Your task to perform on an android device: Open Google Image 0: 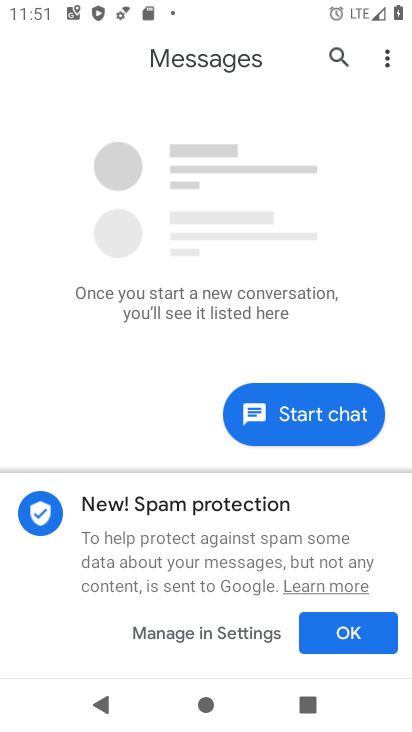
Step 0: press home button
Your task to perform on an android device: Open Google Image 1: 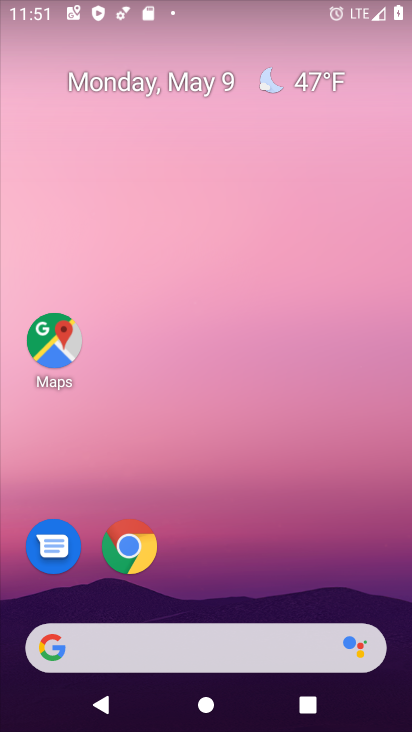
Step 1: drag from (299, 562) to (288, 19)
Your task to perform on an android device: Open Google Image 2: 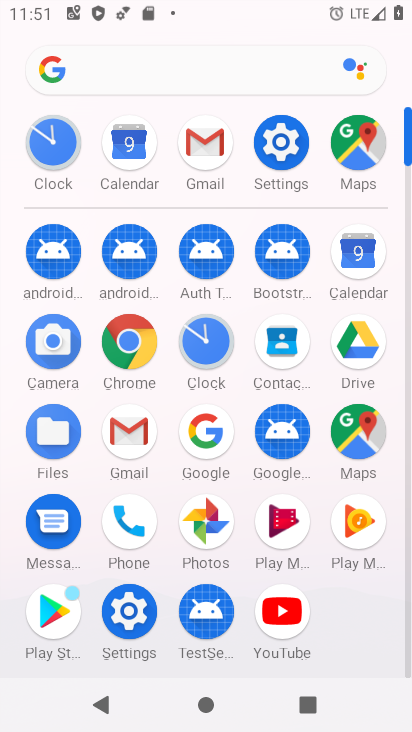
Step 2: click (208, 437)
Your task to perform on an android device: Open Google Image 3: 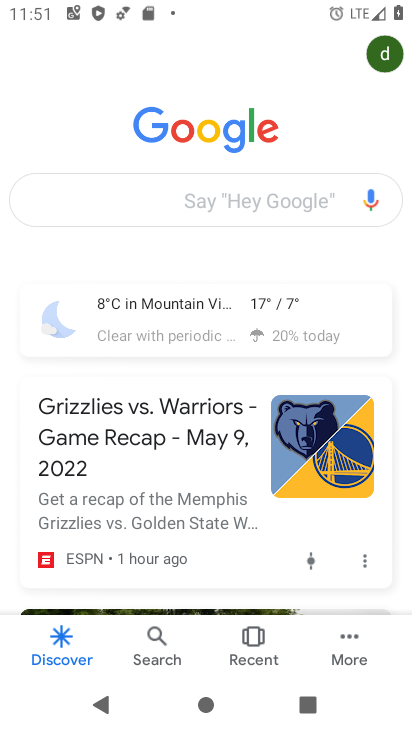
Step 3: task complete